Your task to perform on an android device: turn on priority inbox in the gmail app Image 0: 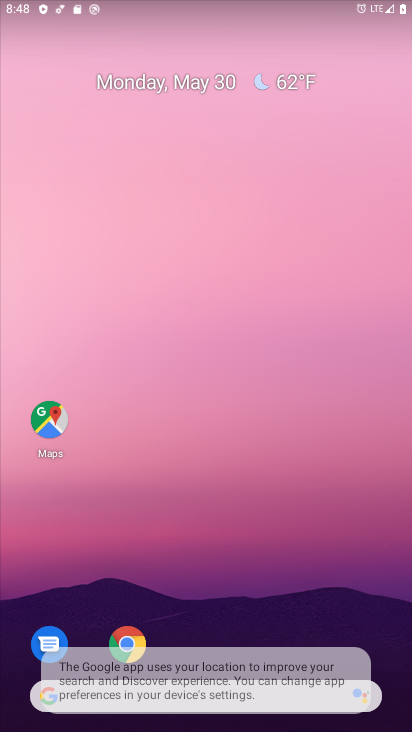
Step 0: drag from (399, 643) to (289, 114)
Your task to perform on an android device: turn on priority inbox in the gmail app Image 1: 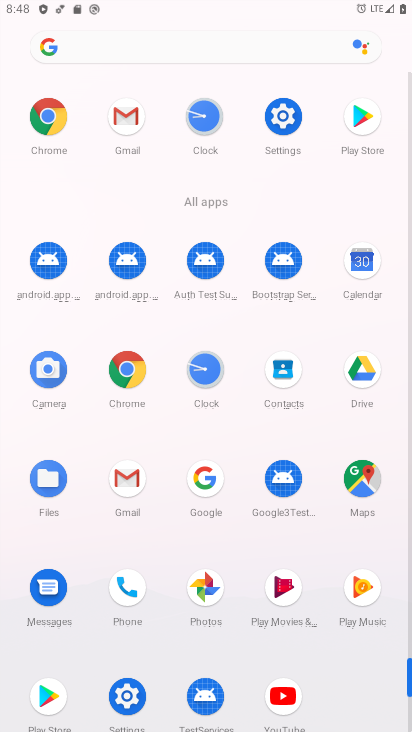
Step 1: click (125, 478)
Your task to perform on an android device: turn on priority inbox in the gmail app Image 2: 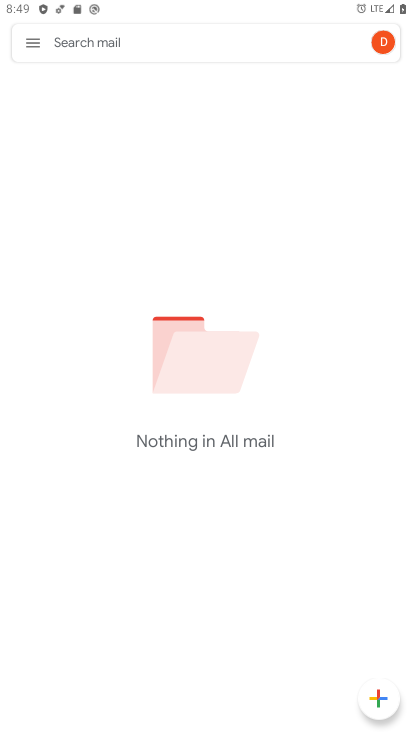
Step 2: click (31, 41)
Your task to perform on an android device: turn on priority inbox in the gmail app Image 3: 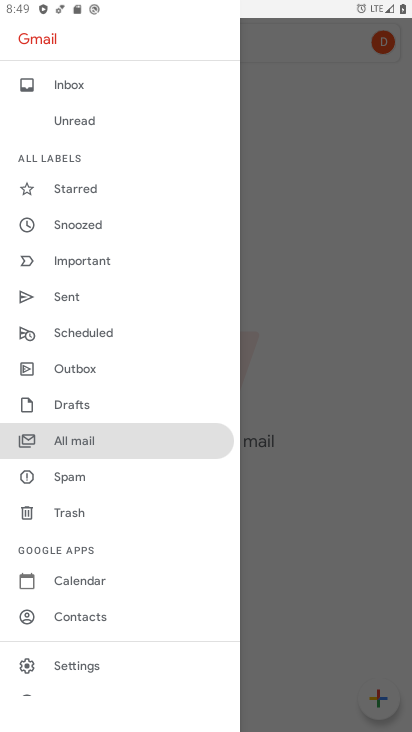
Step 3: click (91, 657)
Your task to perform on an android device: turn on priority inbox in the gmail app Image 4: 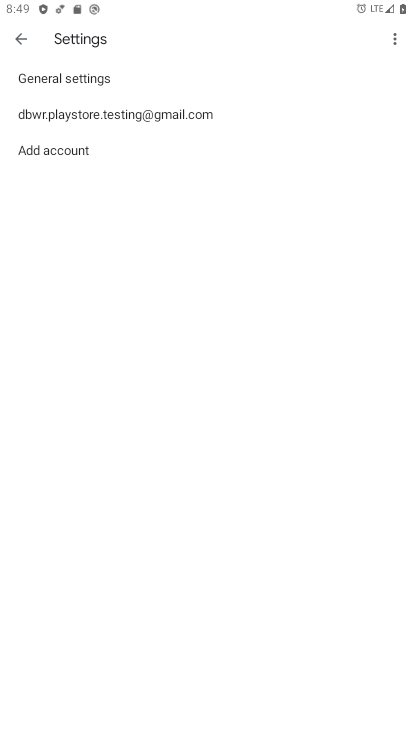
Step 4: click (109, 112)
Your task to perform on an android device: turn on priority inbox in the gmail app Image 5: 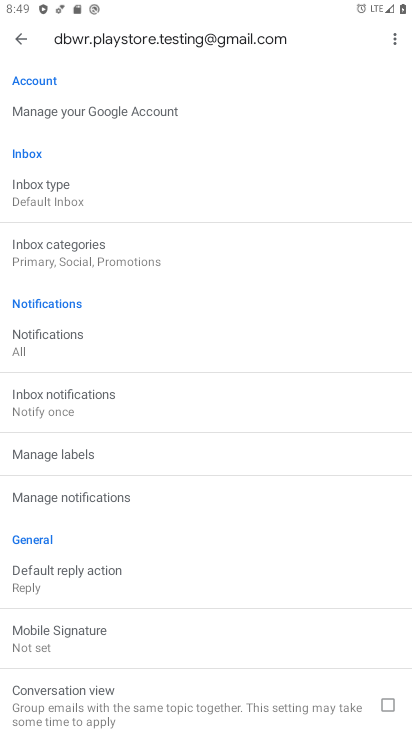
Step 5: click (73, 192)
Your task to perform on an android device: turn on priority inbox in the gmail app Image 6: 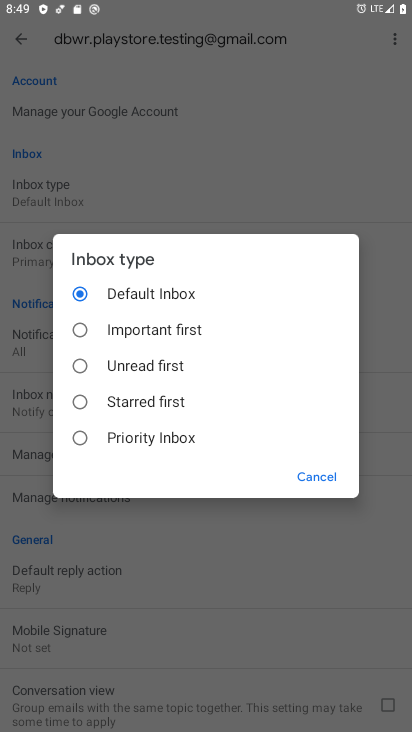
Step 6: click (82, 438)
Your task to perform on an android device: turn on priority inbox in the gmail app Image 7: 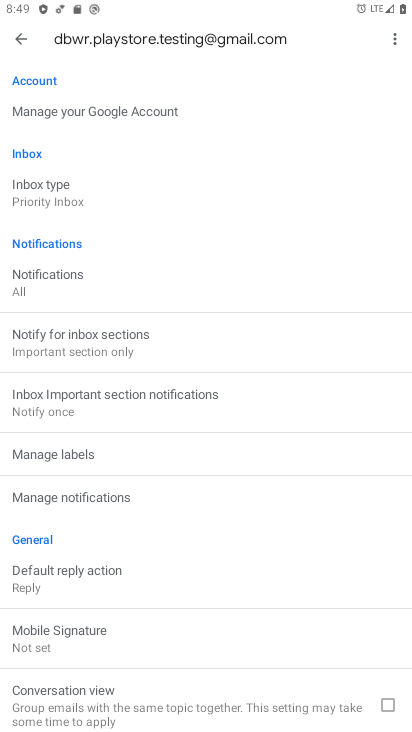
Step 7: click (43, 189)
Your task to perform on an android device: turn on priority inbox in the gmail app Image 8: 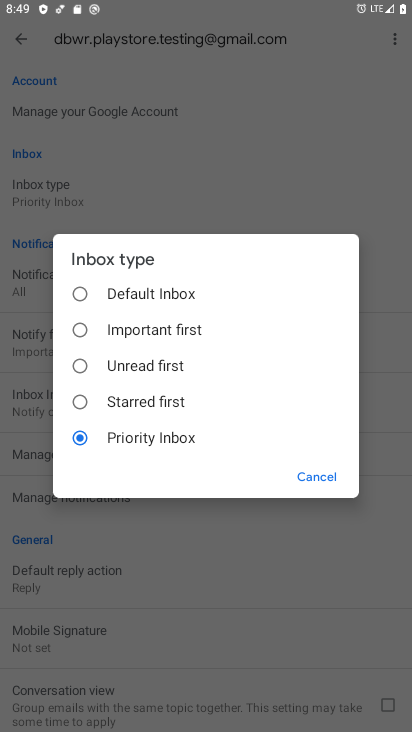
Step 8: task complete